Your task to perform on an android device: Go to Wikipedia Image 0: 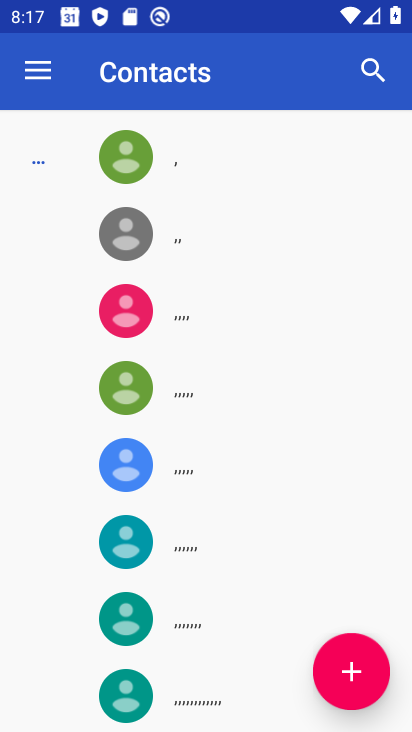
Step 0: press home button
Your task to perform on an android device: Go to Wikipedia Image 1: 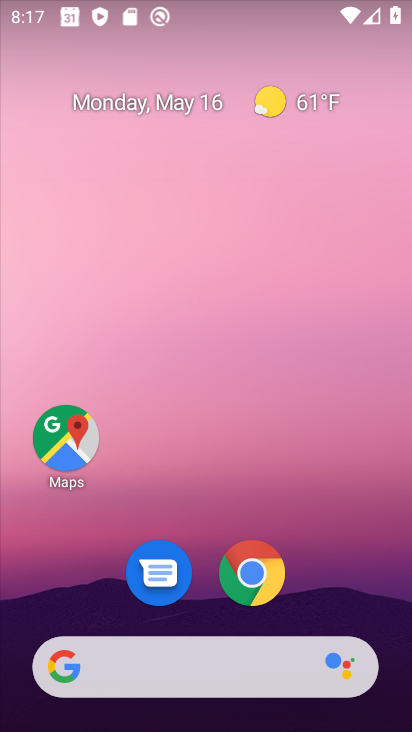
Step 1: drag from (192, 725) to (194, 181)
Your task to perform on an android device: Go to Wikipedia Image 2: 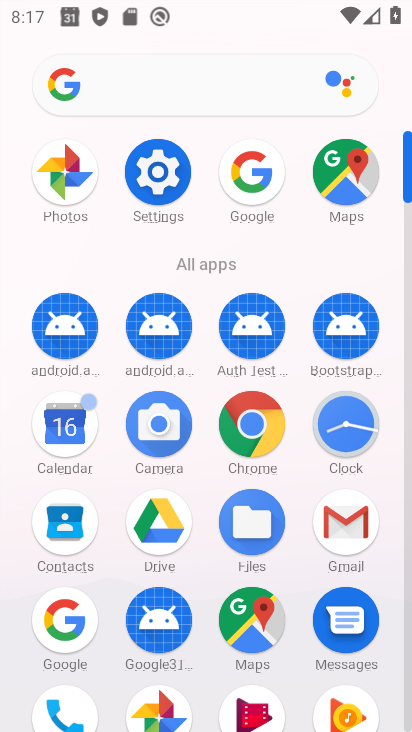
Step 2: click (254, 425)
Your task to perform on an android device: Go to Wikipedia Image 3: 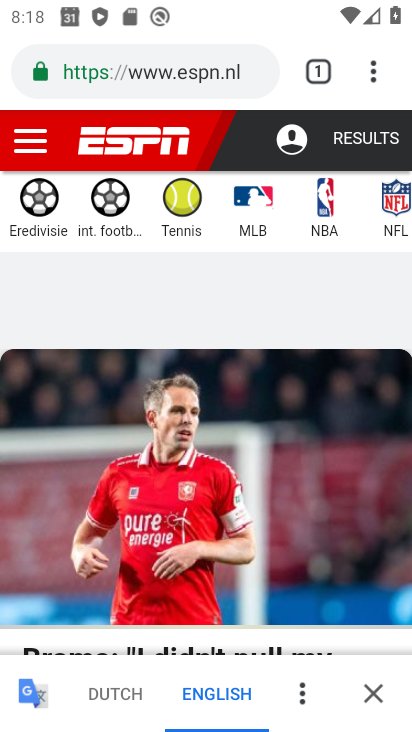
Step 3: click (373, 79)
Your task to perform on an android device: Go to Wikipedia Image 4: 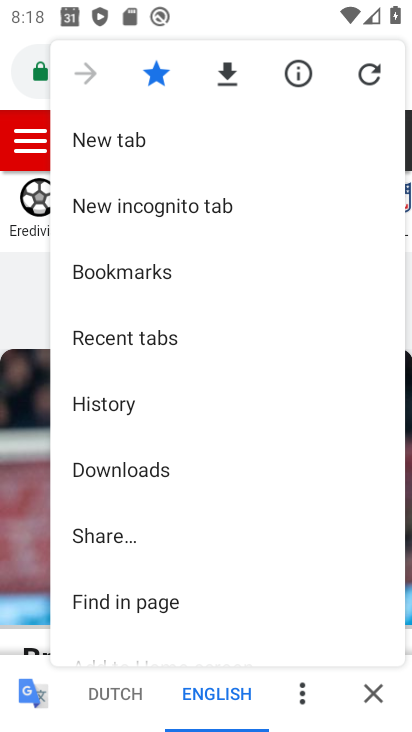
Step 4: click (102, 141)
Your task to perform on an android device: Go to Wikipedia Image 5: 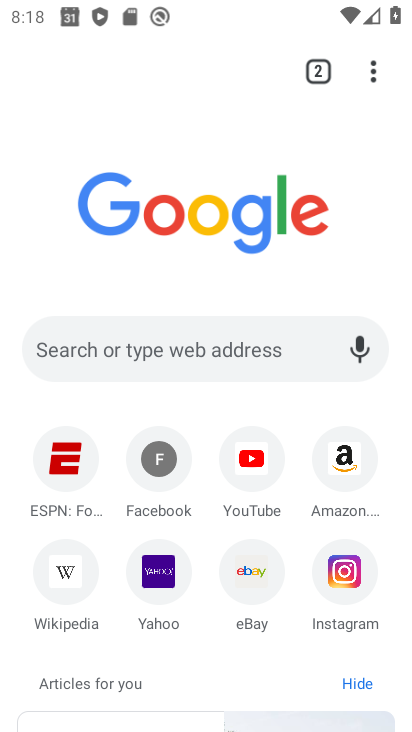
Step 5: click (68, 568)
Your task to perform on an android device: Go to Wikipedia Image 6: 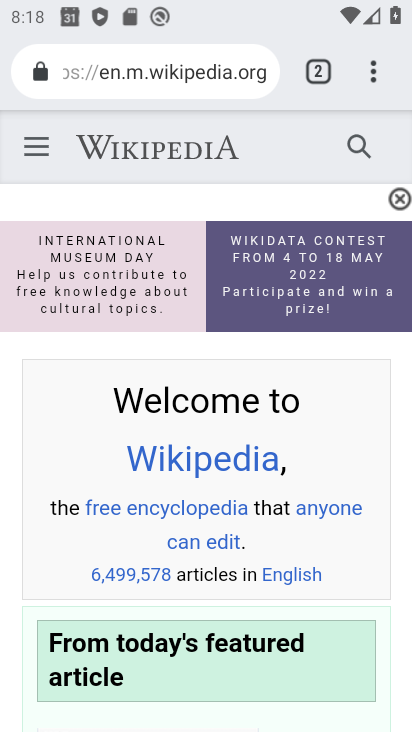
Step 6: task complete